Your task to perform on an android device: Open Google Chrome and click the shortcut for Amazon.com Image 0: 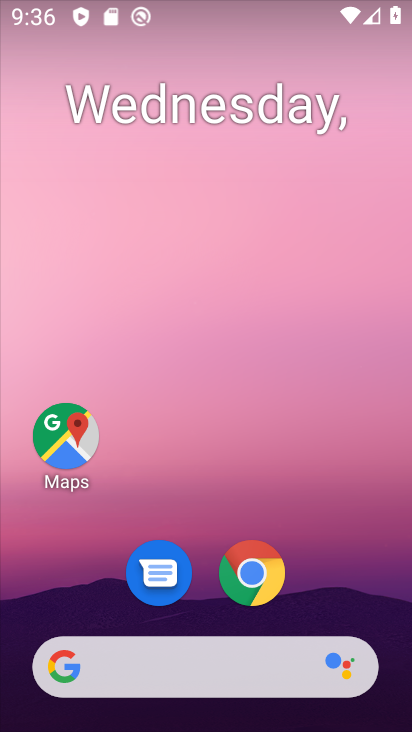
Step 0: drag from (331, 602) to (309, 360)
Your task to perform on an android device: Open Google Chrome and click the shortcut for Amazon.com Image 1: 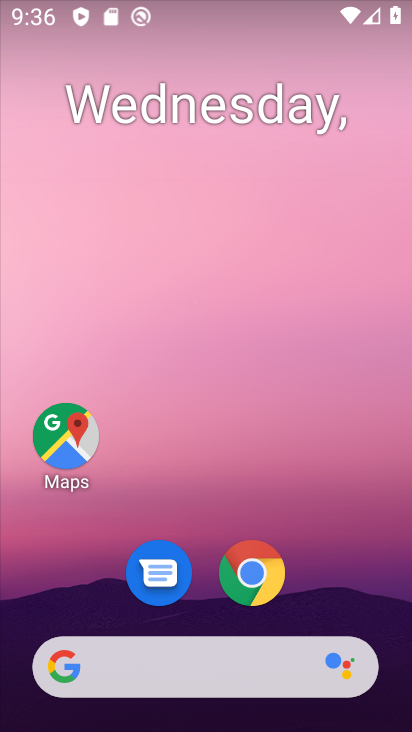
Step 1: click (257, 570)
Your task to perform on an android device: Open Google Chrome and click the shortcut for Amazon.com Image 2: 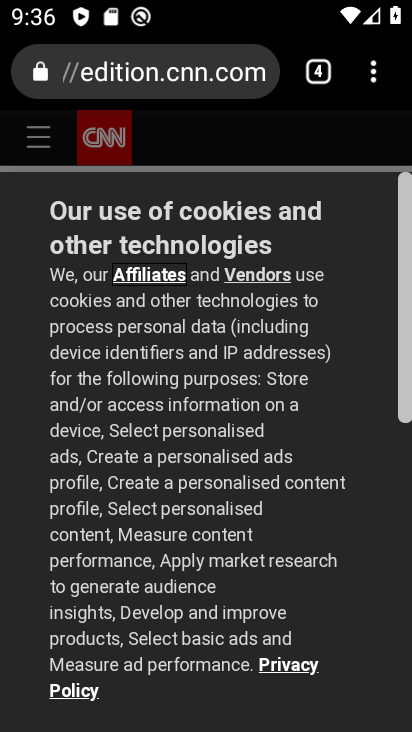
Step 2: click (366, 76)
Your task to perform on an android device: Open Google Chrome and click the shortcut for Amazon.com Image 3: 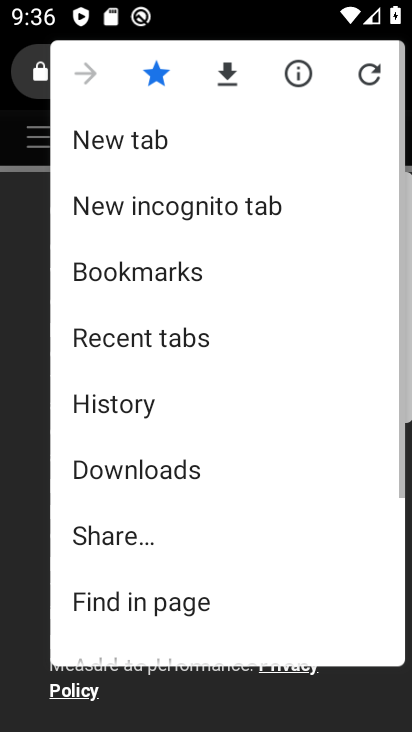
Step 3: click (131, 141)
Your task to perform on an android device: Open Google Chrome and click the shortcut for Amazon.com Image 4: 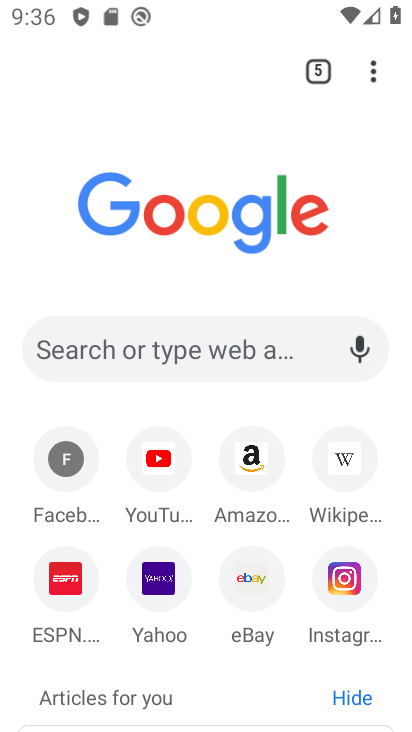
Step 4: click (229, 446)
Your task to perform on an android device: Open Google Chrome and click the shortcut for Amazon.com Image 5: 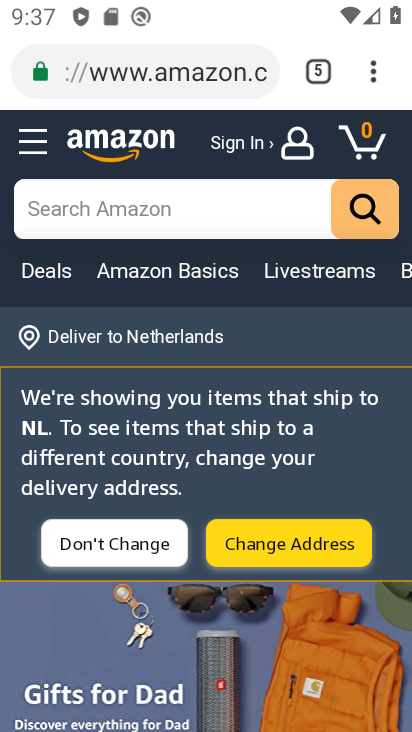
Step 5: task complete